Your task to perform on an android device: Open Chrome and go to settings Image 0: 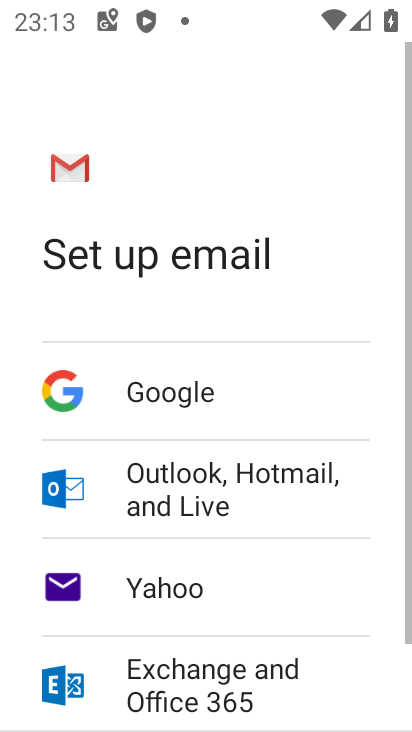
Step 0: press home button
Your task to perform on an android device: Open Chrome and go to settings Image 1: 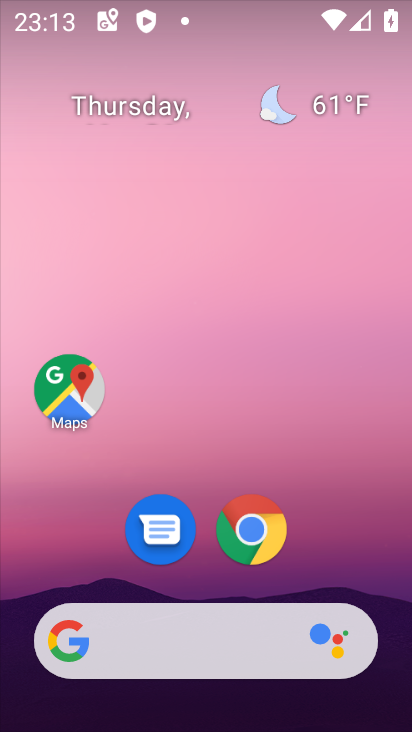
Step 1: click (281, 539)
Your task to perform on an android device: Open Chrome and go to settings Image 2: 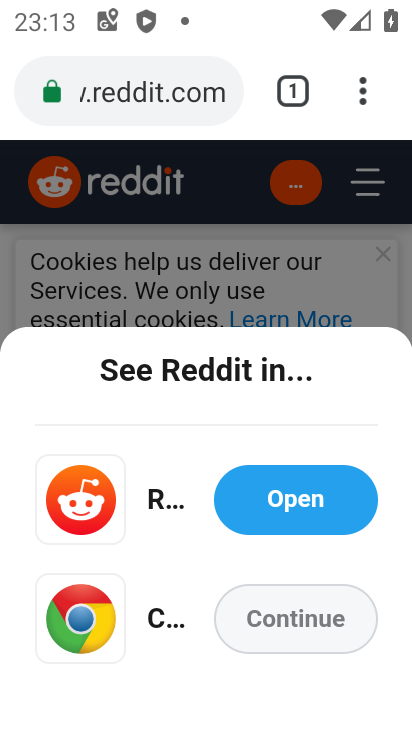
Step 2: click (361, 97)
Your task to perform on an android device: Open Chrome and go to settings Image 3: 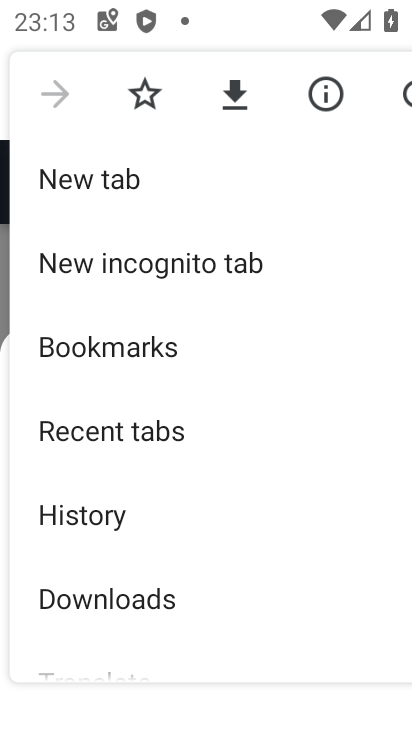
Step 3: drag from (168, 546) to (179, 405)
Your task to perform on an android device: Open Chrome and go to settings Image 4: 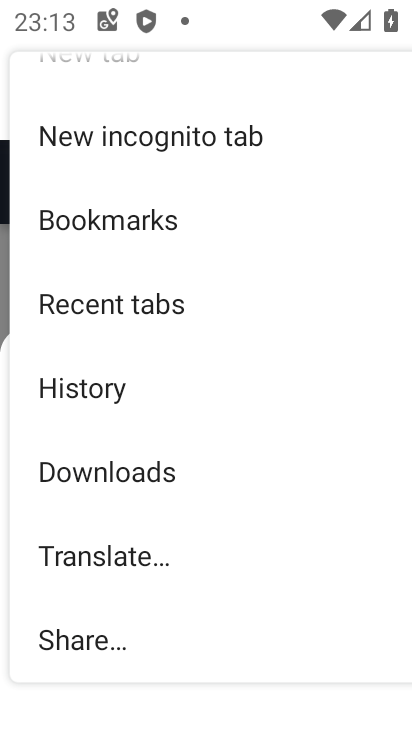
Step 4: drag from (119, 634) to (178, 396)
Your task to perform on an android device: Open Chrome and go to settings Image 5: 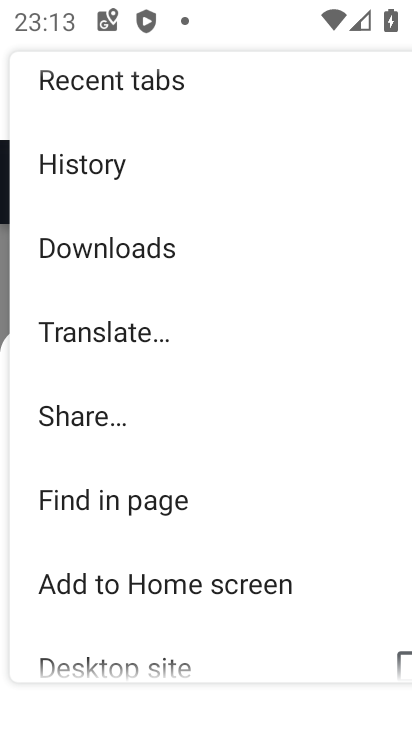
Step 5: drag from (103, 571) to (174, 305)
Your task to perform on an android device: Open Chrome and go to settings Image 6: 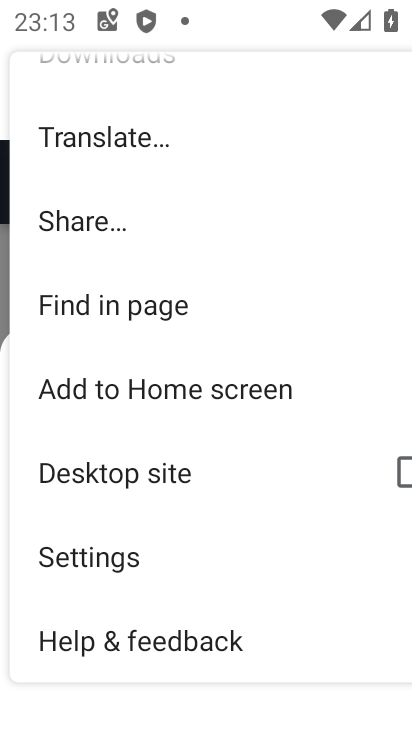
Step 6: click (131, 542)
Your task to perform on an android device: Open Chrome and go to settings Image 7: 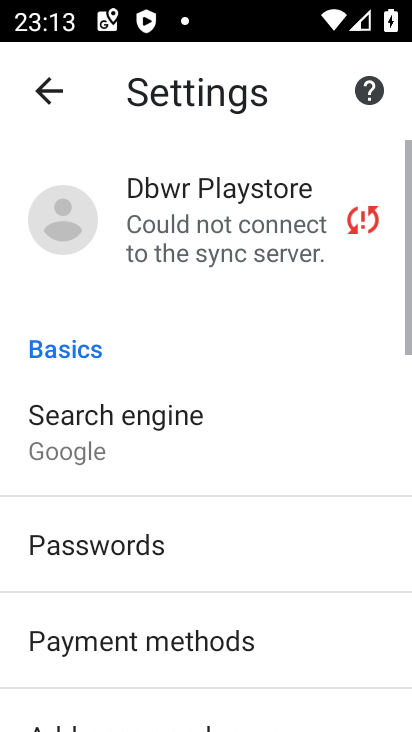
Step 7: task complete